Your task to perform on an android device: What's on my calendar today? Image 0: 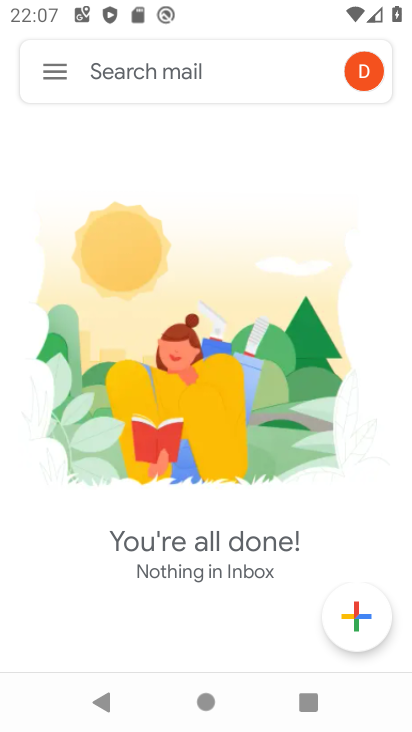
Step 0: press home button
Your task to perform on an android device: What's on my calendar today? Image 1: 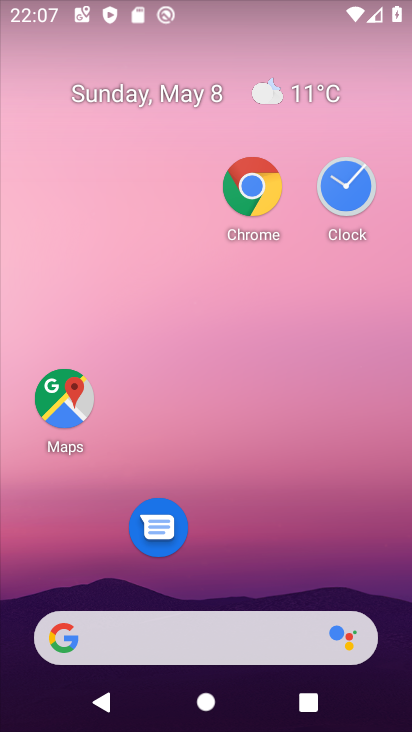
Step 1: drag from (303, 572) to (254, 213)
Your task to perform on an android device: What's on my calendar today? Image 2: 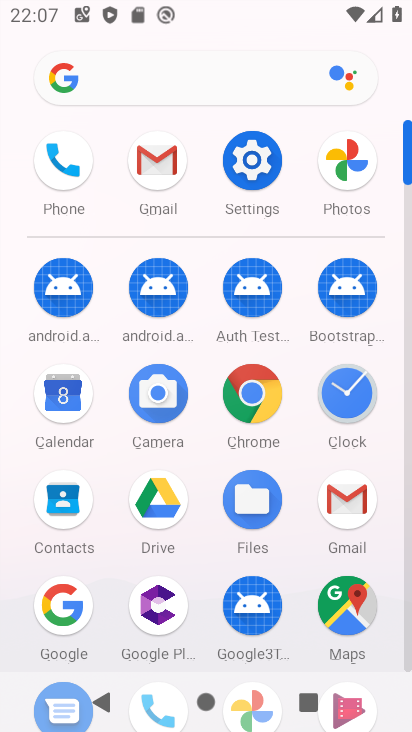
Step 2: press home button
Your task to perform on an android device: What's on my calendar today? Image 3: 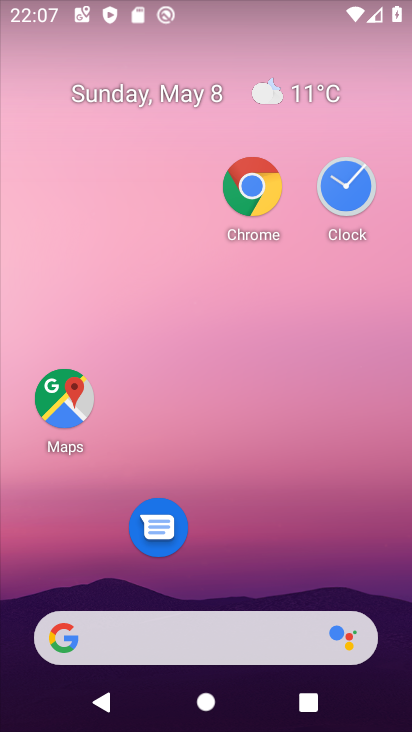
Step 3: click (177, 89)
Your task to perform on an android device: What's on my calendar today? Image 4: 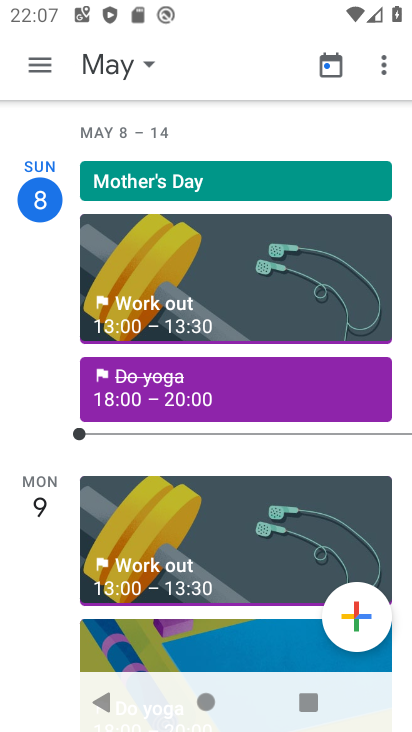
Step 4: drag from (34, 473) to (5, 274)
Your task to perform on an android device: What's on my calendar today? Image 5: 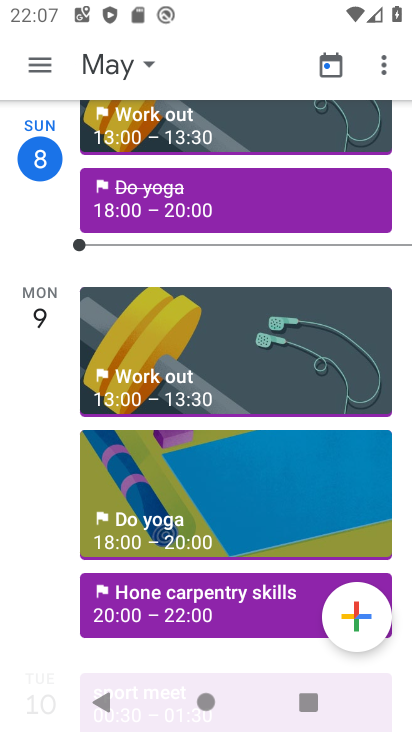
Step 5: drag from (30, 162) to (111, 560)
Your task to perform on an android device: What's on my calendar today? Image 6: 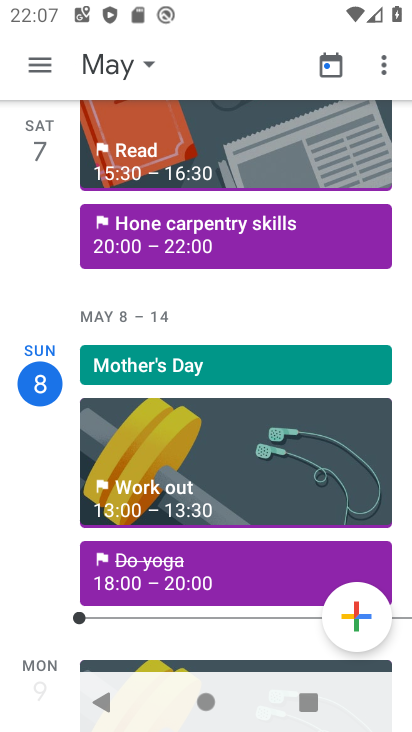
Step 6: drag from (148, 385) to (167, 102)
Your task to perform on an android device: What's on my calendar today? Image 7: 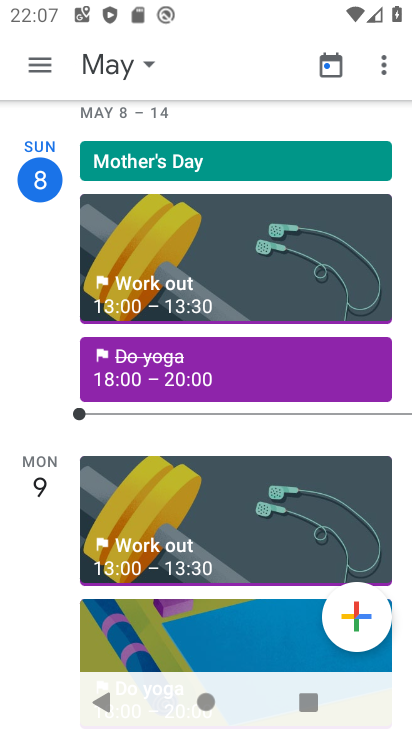
Step 7: drag from (67, 463) to (137, 78)
Your task to perform on an android device: What's on my calendar today? Image 8: 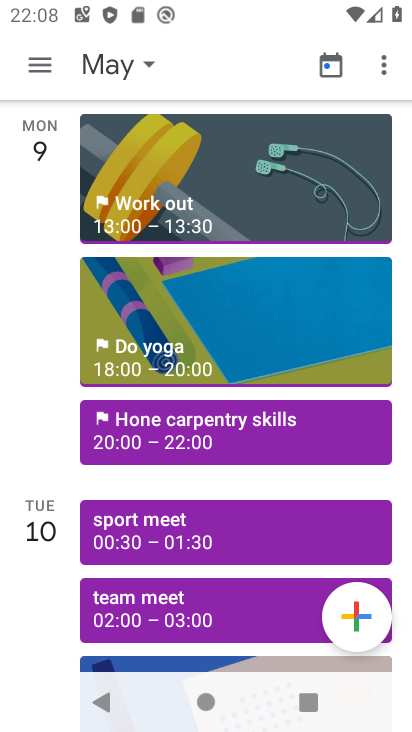
Step 8: click (99, 56)
Your task to perform on an android device: What's on my calendar today? Image 9: 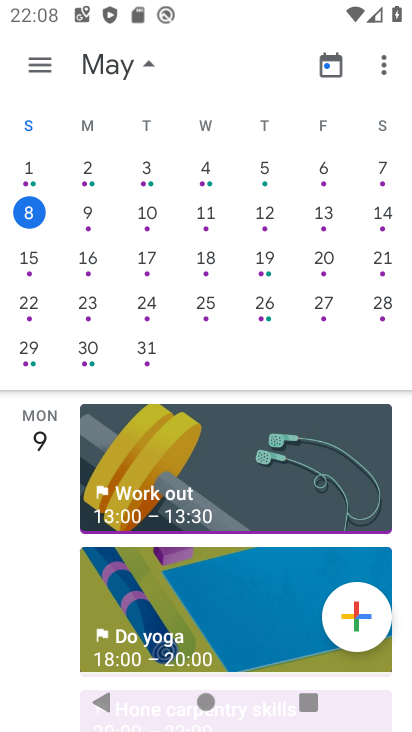
Step 9: click (96, 57)
Your task to perform on an android device: What's on my calendar today? Image 10: 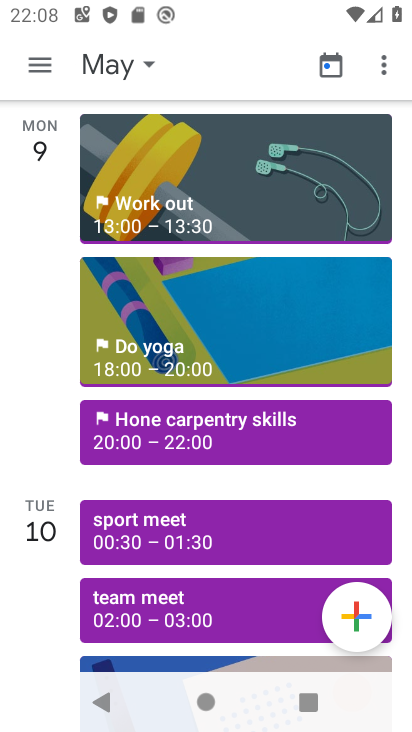
Step 10: click (25, 72)
Your task to perform on an android device: What's on my calendar today? Image 11: 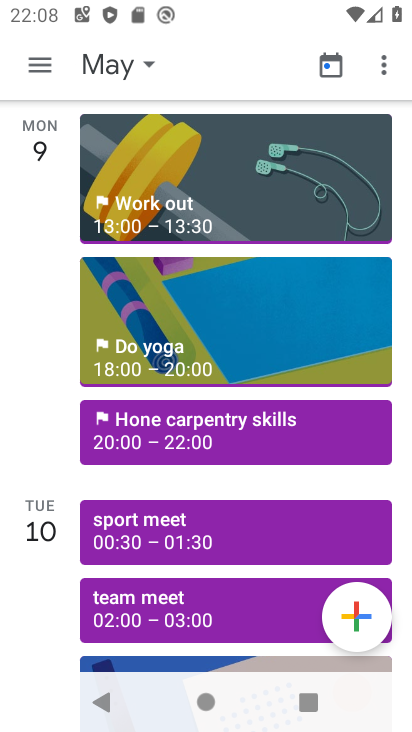
Step 11: click (25, 72)
Your task to perform on an android device: What's on my calendar today? Image 12: 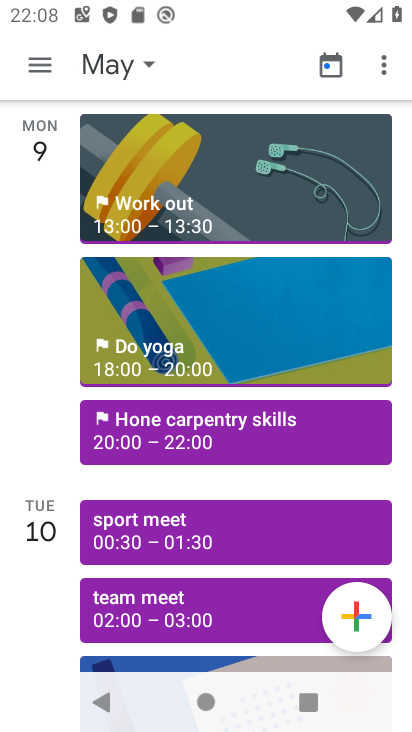
Step 12: click (55, 56)
Your task to perform on an android device: What's on my calendar today? Image 13: 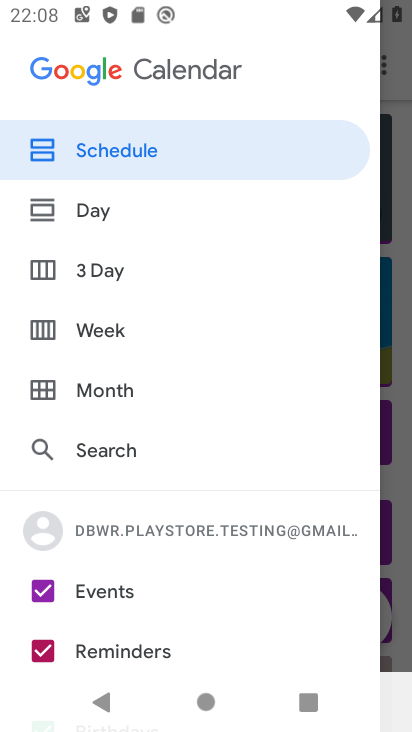
Step 13: click (54, 215)
Your task to perform on an android device: What's on my calendar today? Image 14: 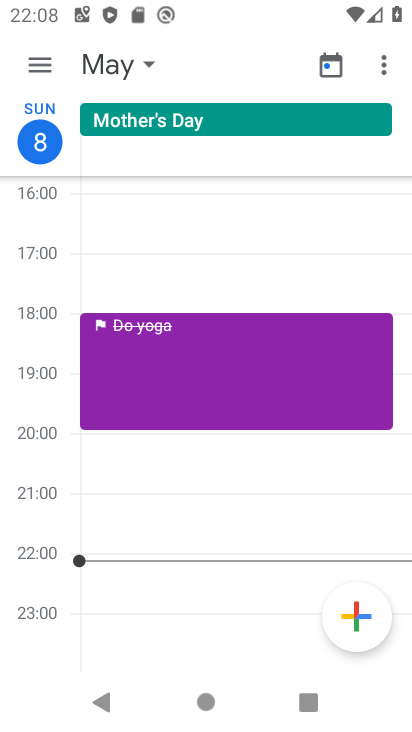
Step 14: task complete